Your task to perform on an android device: What's the weather going to be tomorrow? Image 0: 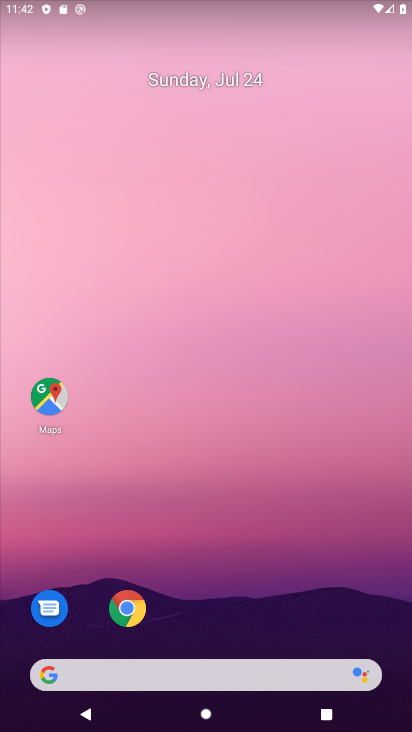
Step 0: press home button
Your task to perform on an android device: What's the weather going to be tomorrow? Image 1: 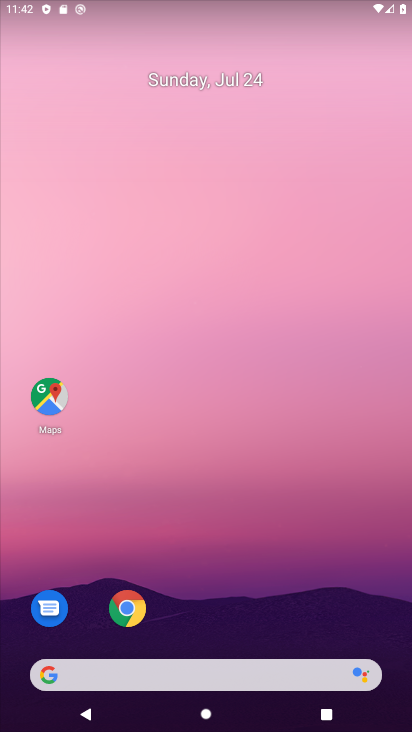
Step 1: click (212, 666)
Your task to perform on an android device: What's the weather going to be tomorrow? Image 2: 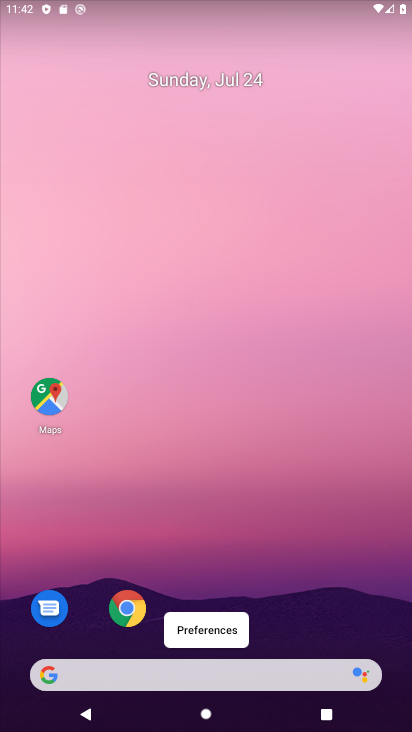
Step 2: click (121, 667)
Your task to perform on an android device: What's the weather going to be tomorrow? Image 3: 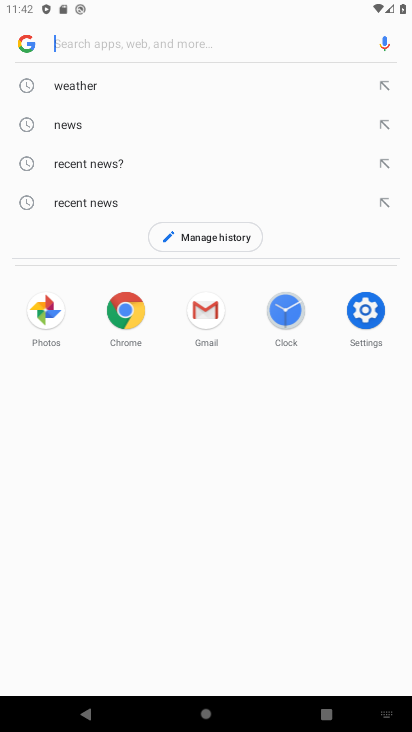
Step 3: click (83, 88)
Your task to perform on an android device: What's the weather going to be tomorrow? Image 4: 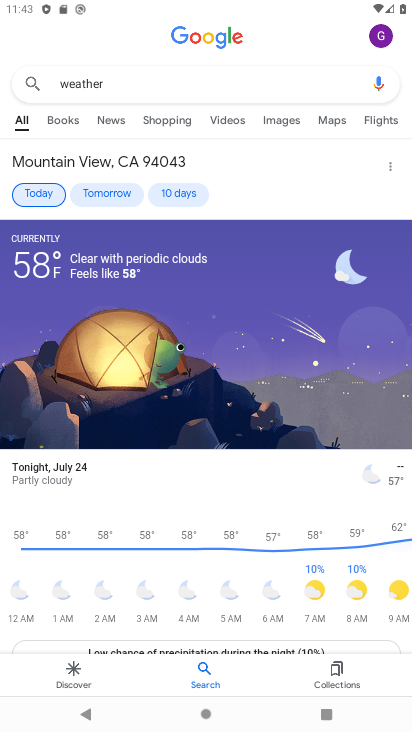
Step 4: click (110, 197)
Your task to perform on an android device: What's the weather going to be tomorrow? Image 5: 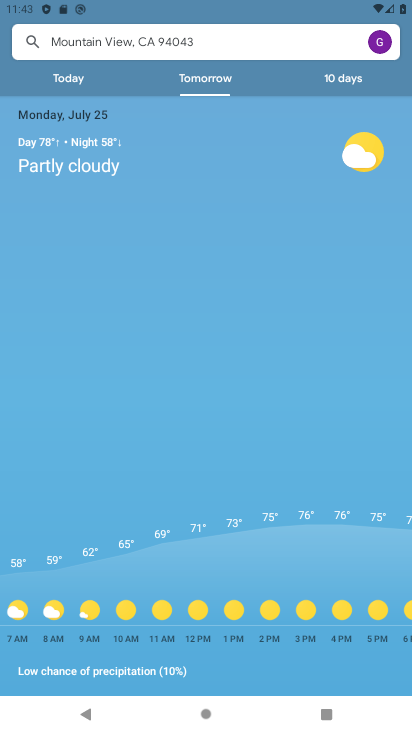
Step 5: task complete